Your task to perform on an android device: Go to eBay Image 0: 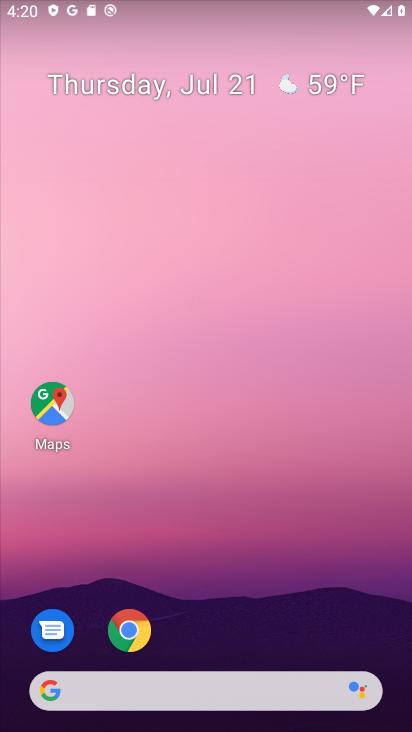
Step 0: drag from (210, 627) to (199, 154)
Your task to perform on an android device: Go to eBay Image 1: 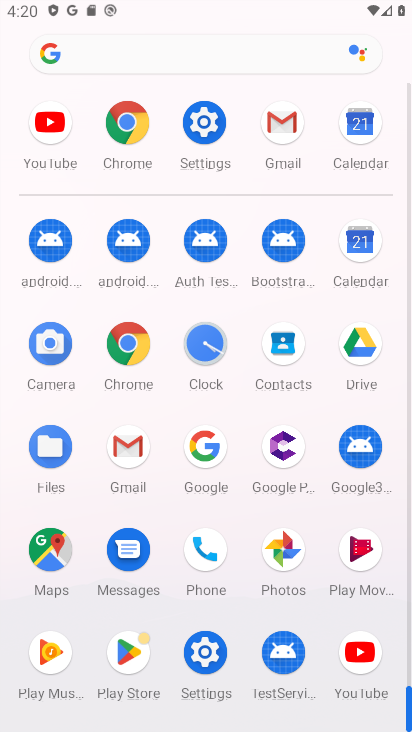
Step 1: click (132, 119)
Your task to perform on an android device: Go to eBay Image 2: 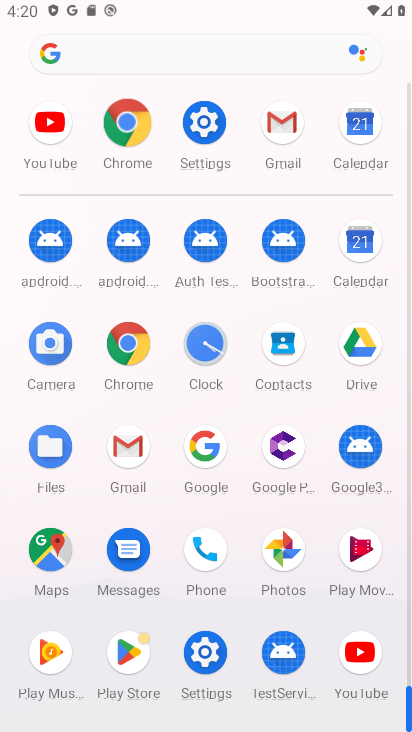
Step 2: click (123, 121)
Your task to perform on an android device: Go to eBay Image 3: 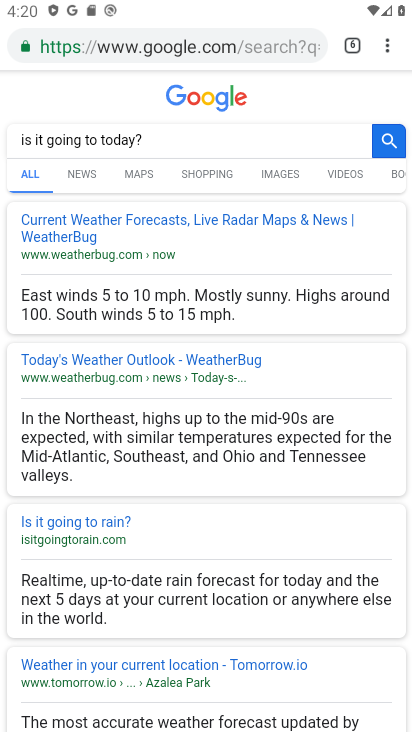
Step 3: drag from (382, 42) to (215, 93)
Your task to perform on an android device: Go to eBay Image 4: 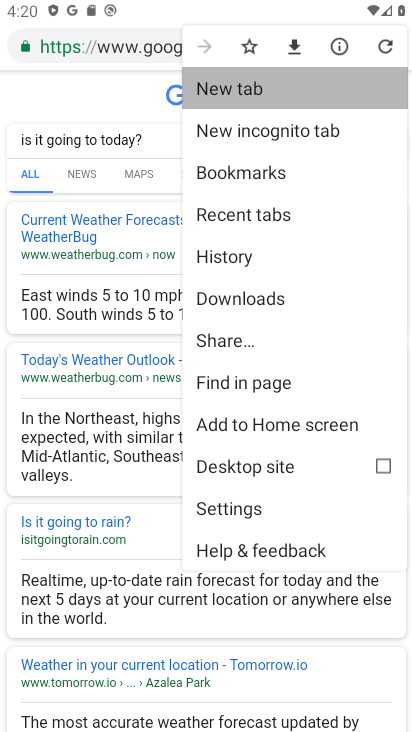
Step 4: click (215, 93)
Your task to perform on an android device: Go to eBay Image 5: 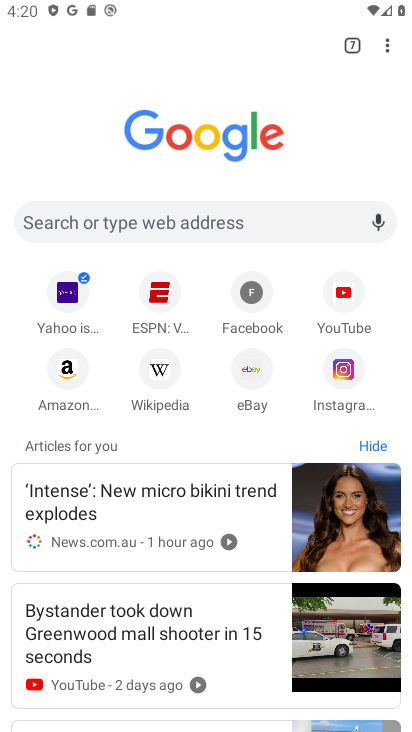
Step 5: click (250, 375)
Your task to perform on an android device: Go to eBay Image 6: 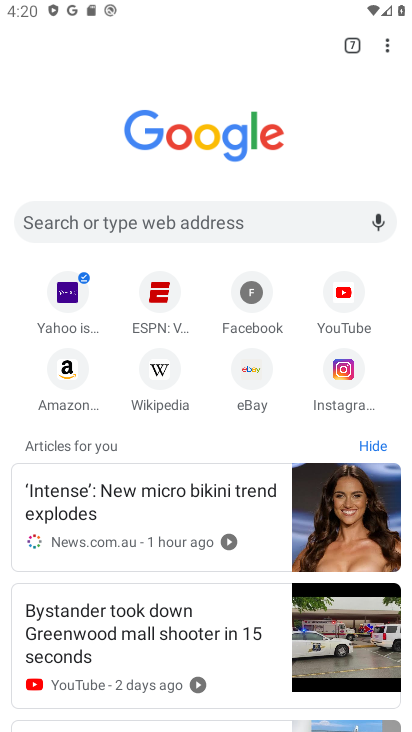
Step 6: click (254, 359)
Your task to perform on an android device: Go to eBay Image 7: 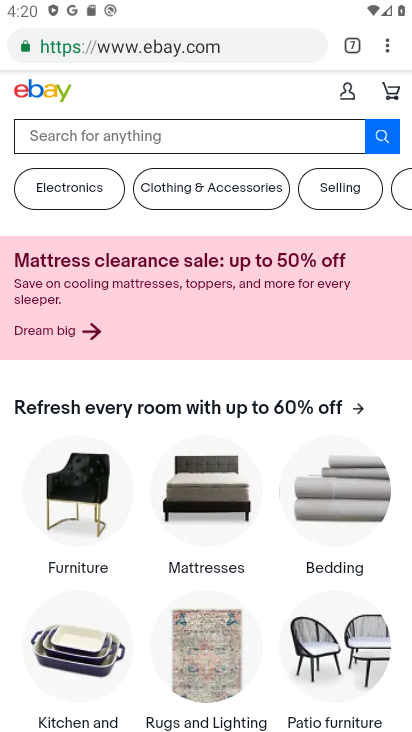
Step 7: task complete